Your task to perform on an android device: Open ESPN.com Image 0: 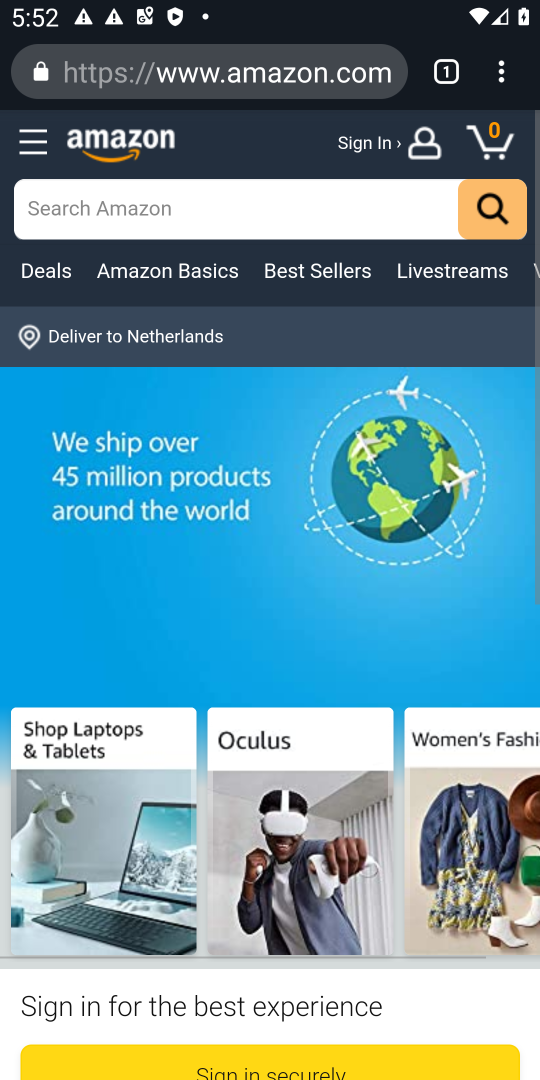
Step 0: click (310, 84)
Your task to perform on an android device: Open ESPN.com Image 1: 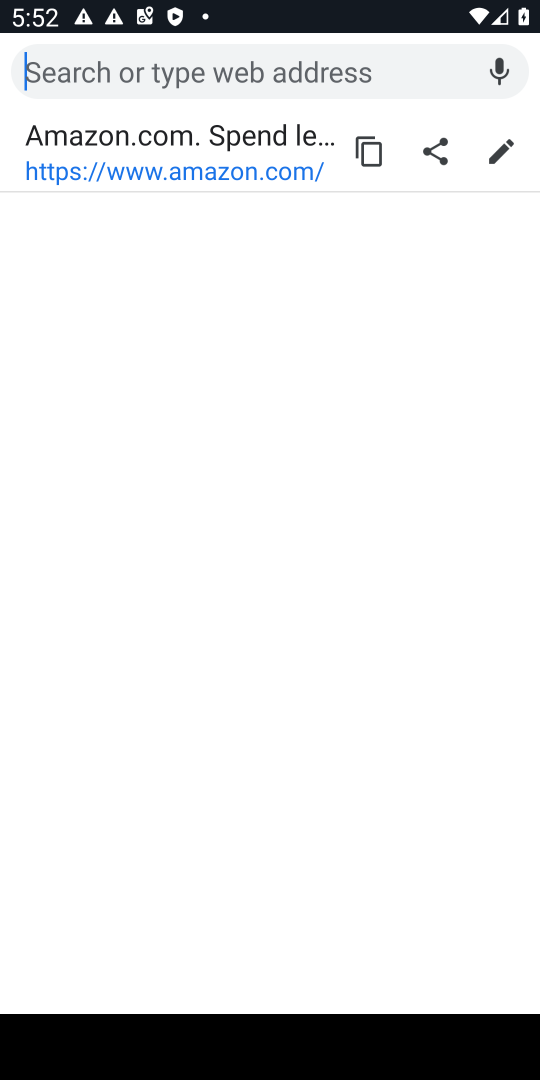
Step 1: type "ESPN.com"
Your task to perform on an android device: Open ESPN.com Image 2: 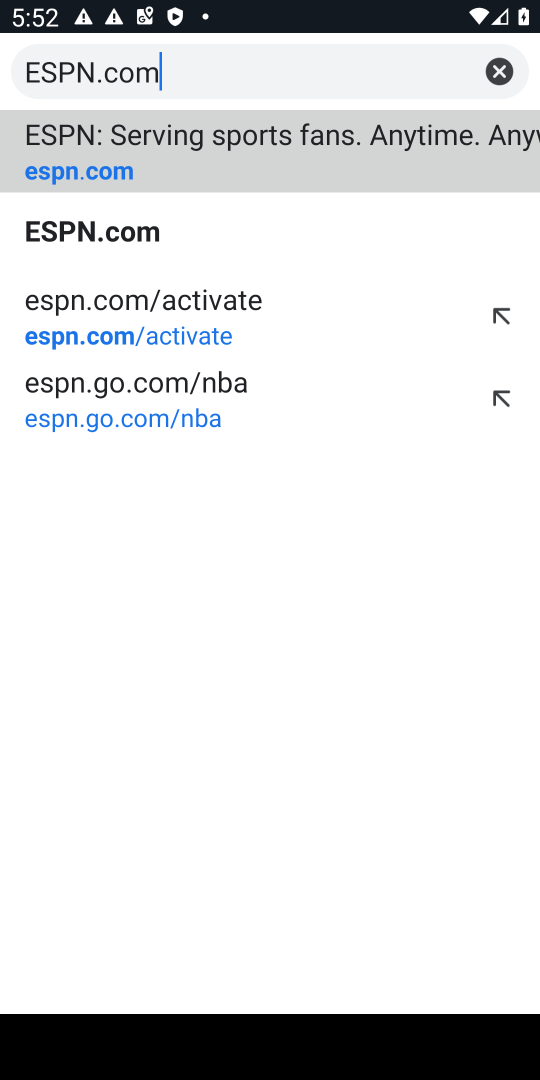
Step 2: click (269, 163)
Your task to perform on an android device: Open ESPN.com Image 3: 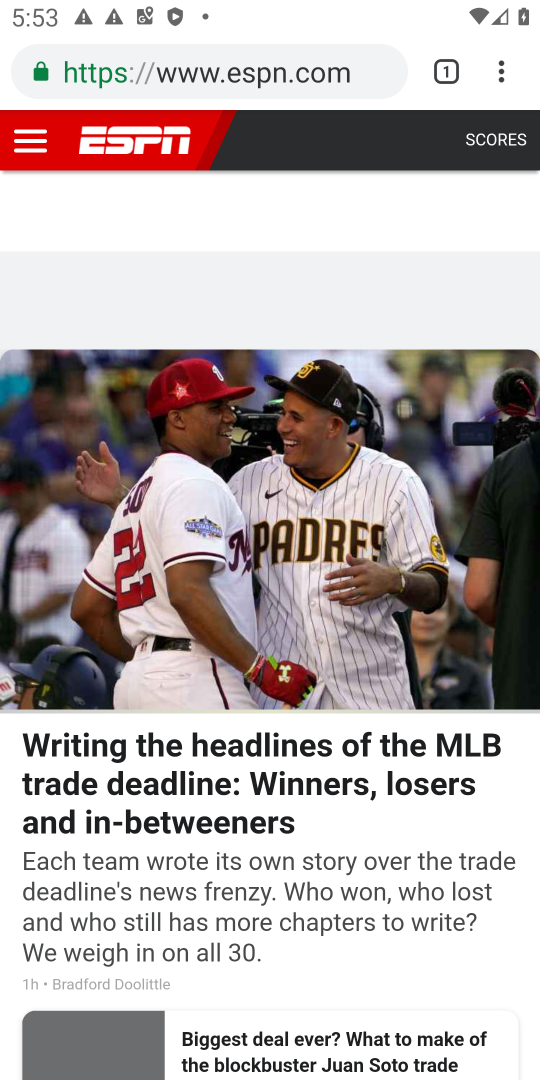
Step 3: task complete